Your task to perform on an android device: delete the emails in spam in the gmail app Image 0: 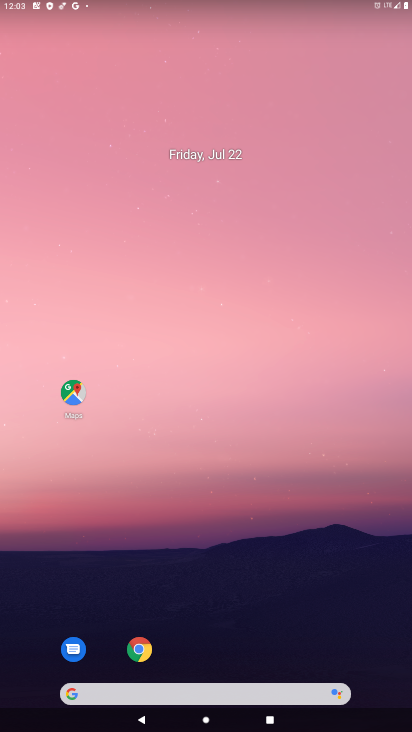
Step 0: drag from (332, 658) to (196, 159)
Your task to perform on an android device: delete the emails in spam in the gmail app Image 1: 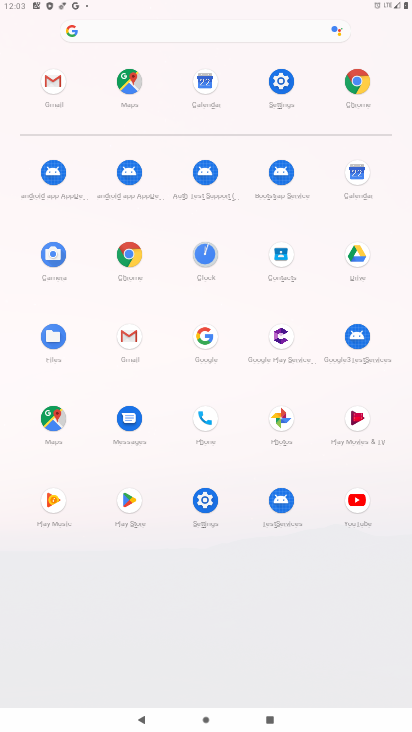
Step 1: click (59, 84)
Your task to perform on an android device: delete the emails in spam in the gmail app Image 2: 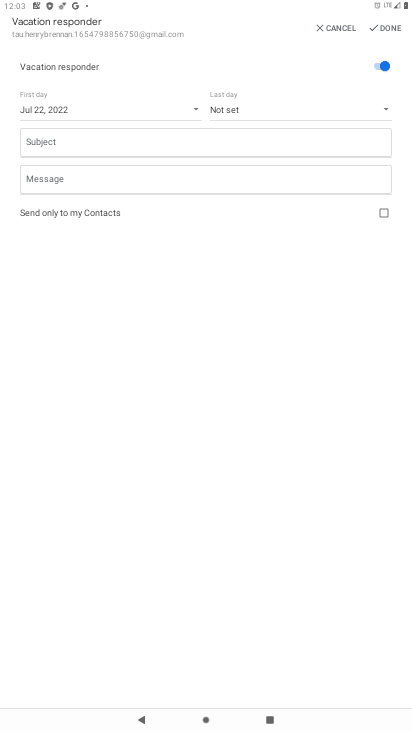
Step 2: press back button
Your task to perform on an android device: delete the emails in spam in the gmail app Image 3: 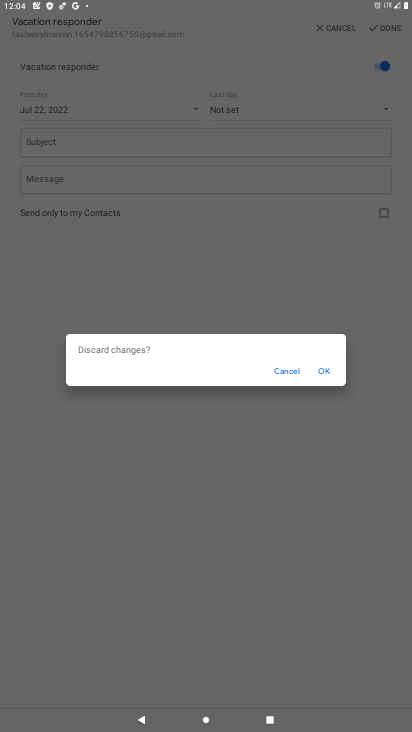
Step 3: click (320, 372)
Your task to perform on an android device: delete the emails in spam in the gmail app Image 4: 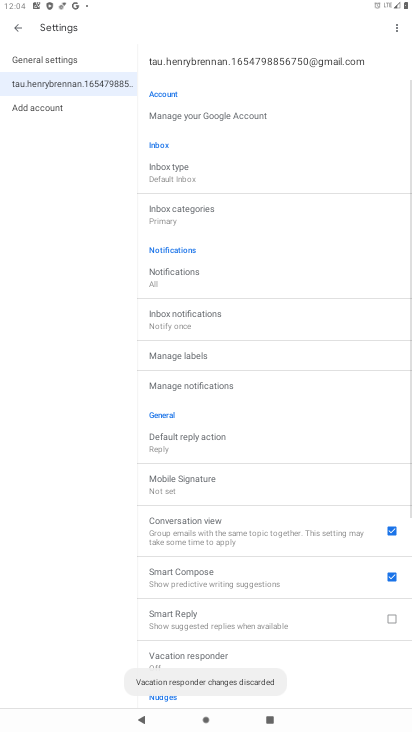
Step 4: click (15, 35)
Your task to perform on an android device: delete the emails in spam in the gmail app Image 5: 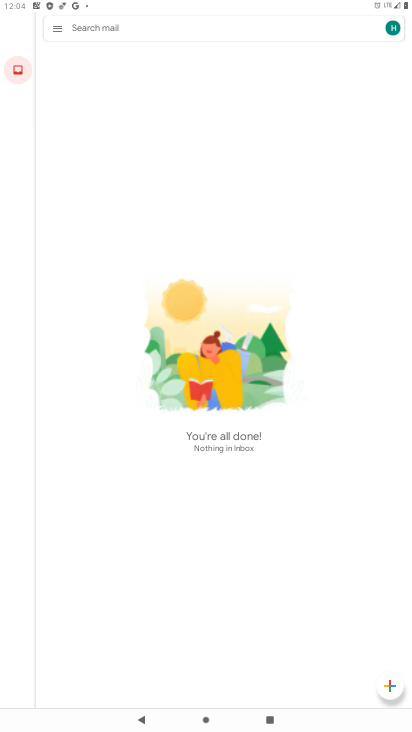
Step 5: click (49, 30)
Your task to perform on an android device: delete the emails in spam in the gmail app Image 6: 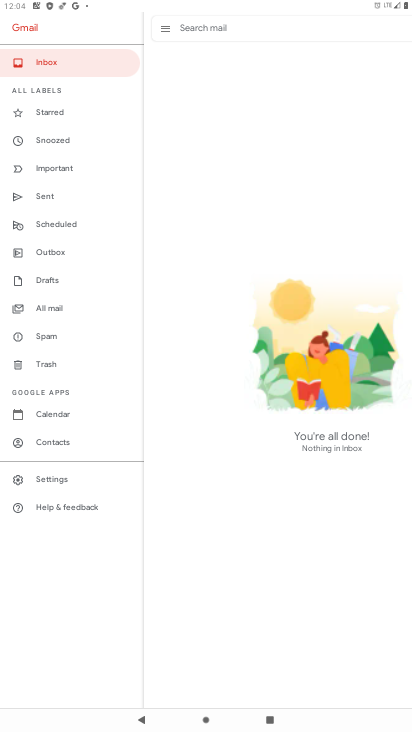
Step 6: click (54, 336)
Your task to perform on an android device: delete the emails in spam in the gmail app Image 7: 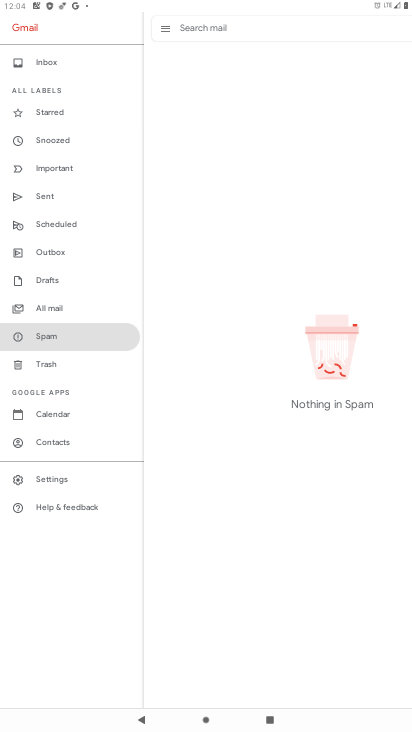
Step 7: task complete